Your task to perform on an android device: turn vacation reply on in the gmail app Image 0: 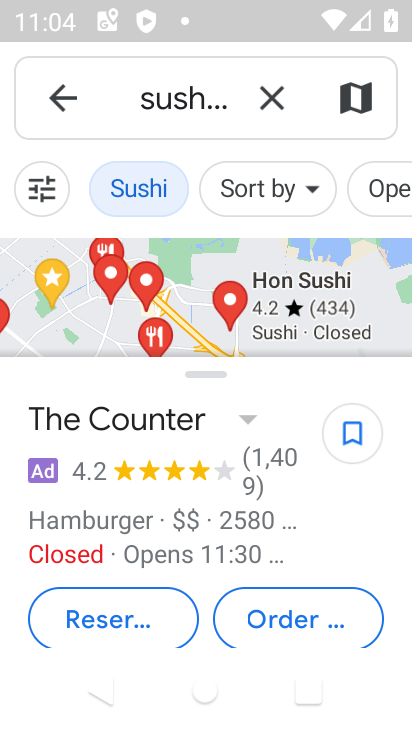
Step 0: press home button
Your task to perform on an android device: turn vacation reply on in the gmail app Image 1: 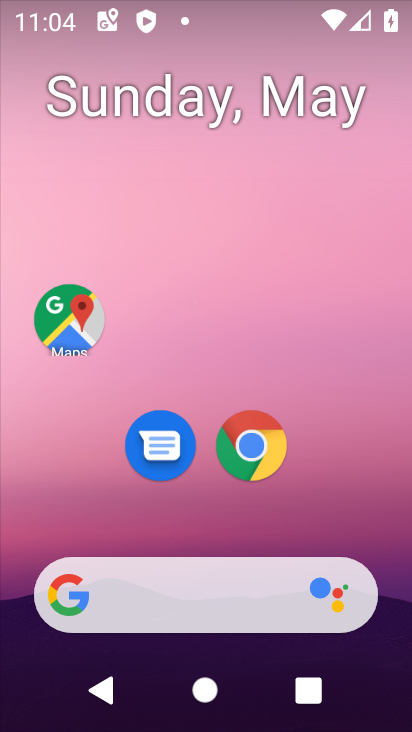
Step 1: drag from (316, 404) to (233, 52)
Your task to perform on an android device: turn vacation reply on in the gmail app Image 2: 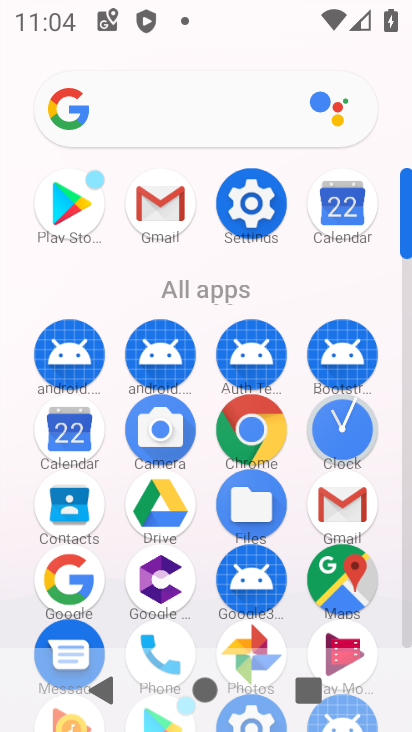
Step 2: click (349, 514)
Your task to perform on an android device: turn vacation reply on in the gmail app Image 3: 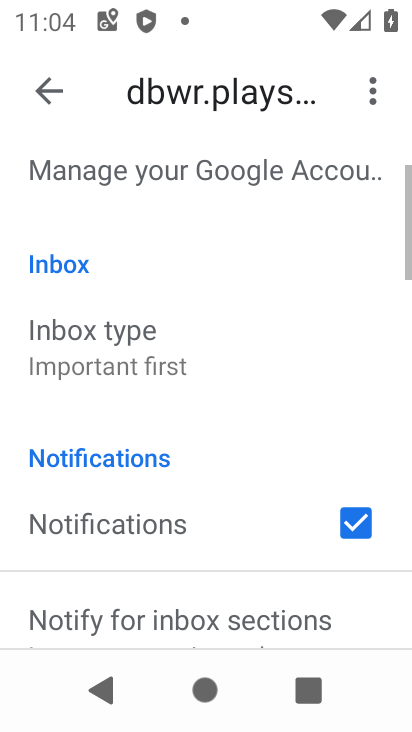
Step 3: drag from (219, 523) to (235, 58)
Your task to perform on an android device: turn vacation reply on in the gmail app Image 4: 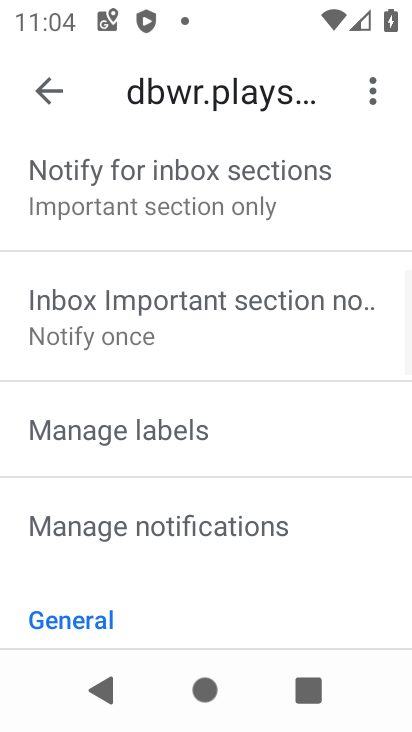
Step 4: drag from (199, 532) to (238, 113)
Your task to perform on an android device: turn vacation reply on in the gmail app Image 5: 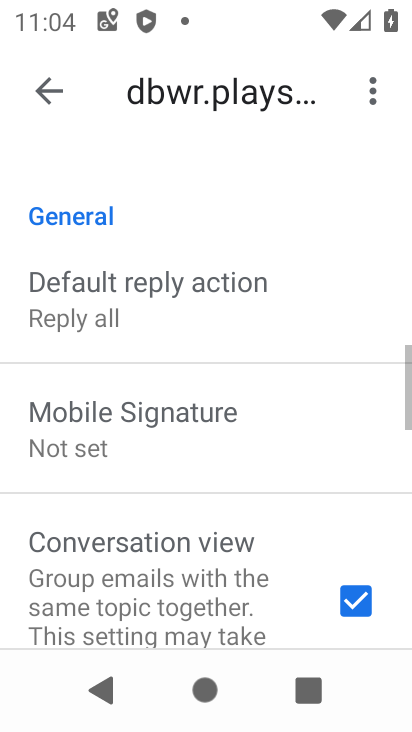
Step 5: drag from (199, 573) to (210, 135)
Your task to perform on an android device: turn vacation reply on in the gmail app Image 6: 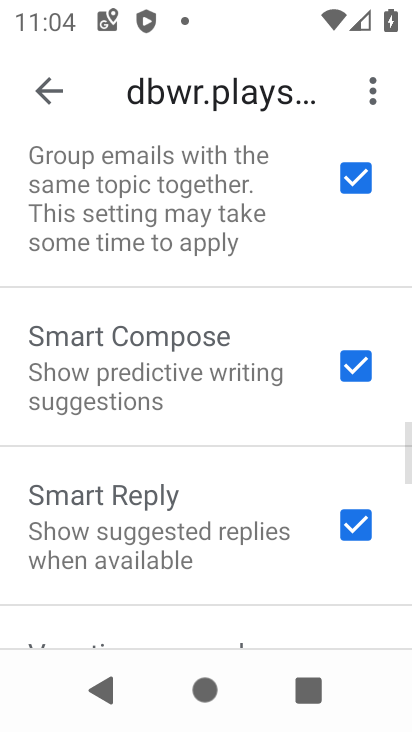
Step 6: drag from (189, 542) to (211, 216)
Your task to perform on an android device: turn vacation reply on in the gmail app Image 7: 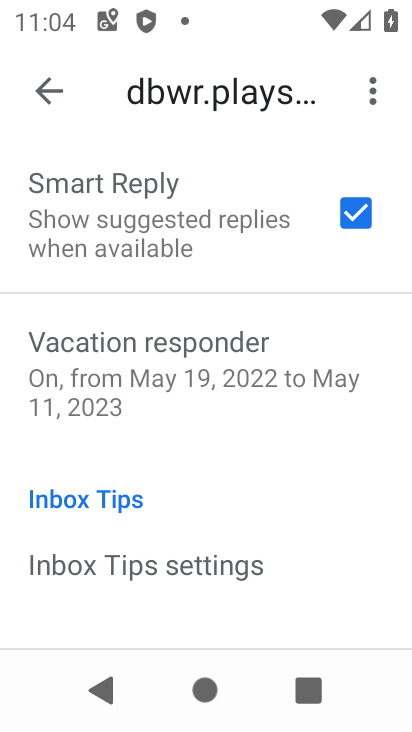
Step 7: click (166, 361)
Your task to perform on an android device: turn vacation reply on in the gmail app Image 8: 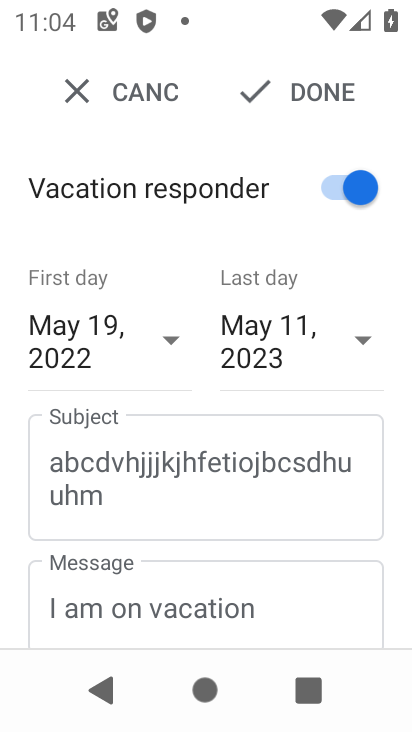
Step 8: click (330, 89)
Your task to perform on an android device: turn vacation reply on in the gmail app Image 9: 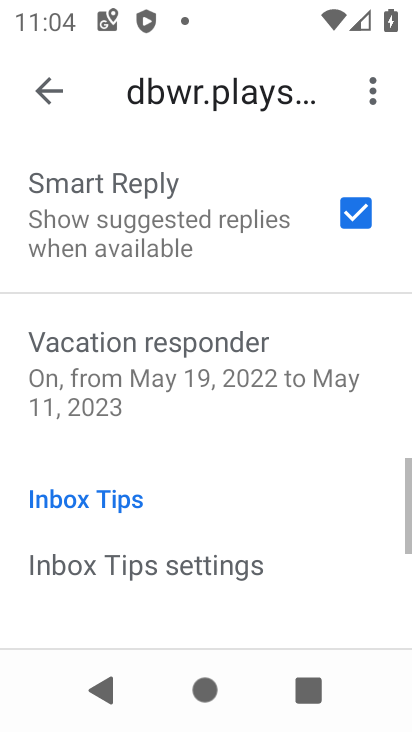
Step 9: task complete